Your task to perform on an android device: Go to battery settings Image 0: 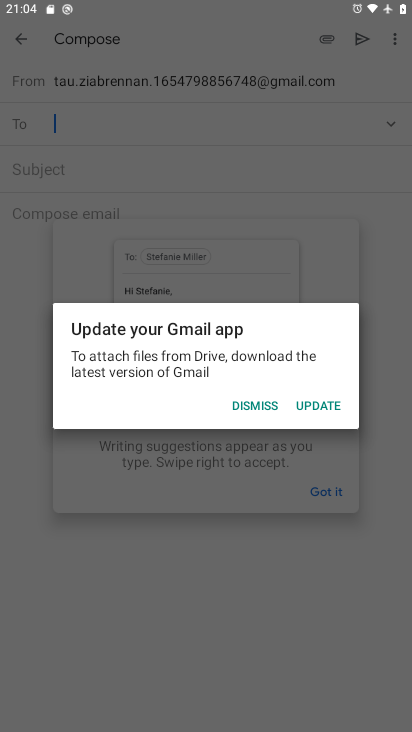
Step 0: press home button
Your task to perform on an android device: Go to battery settings Image 1: 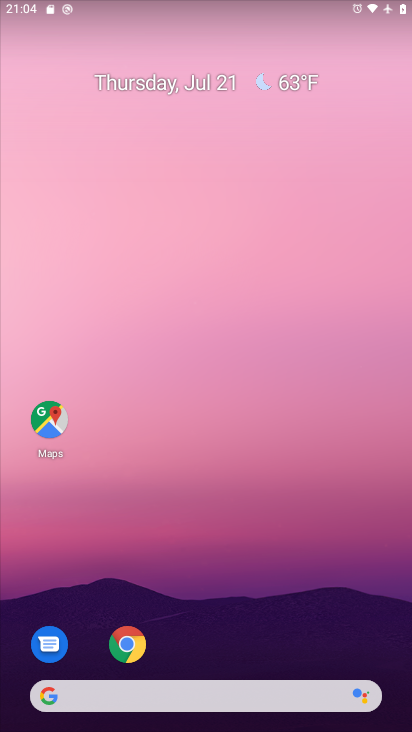
Step 1: drag from (275, 599) to (234, 87)
Your task to perform on an android device: Go to battery settings Image 2: 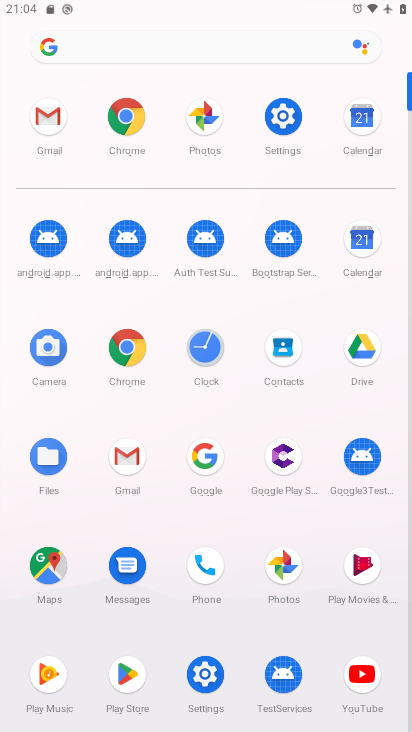
Step 2: click (280, 104)
Your task to perform on an android device: Go to battery settings Image 3: 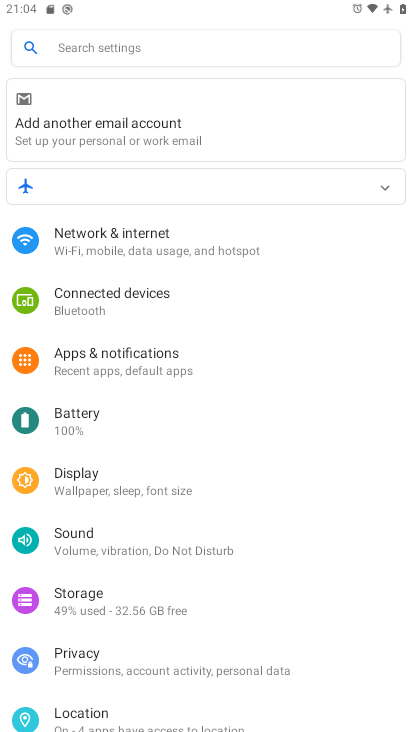
Step 3: click (105, 403)
Your task to perform on an android device: Go to battery settings Image 4: 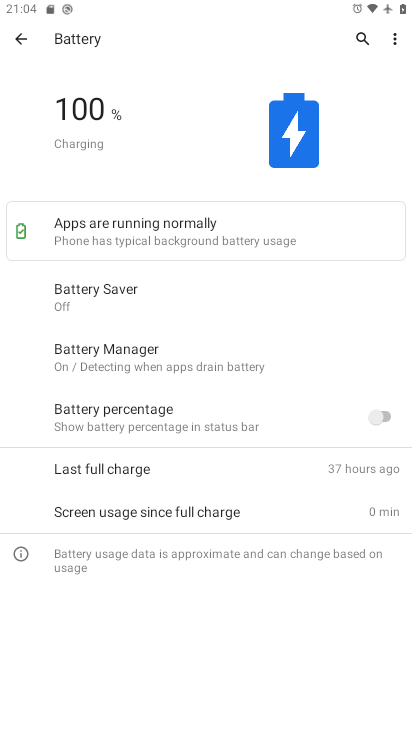
Step 4: task complete